Your task to perform on an android device: check battery use Image 0: 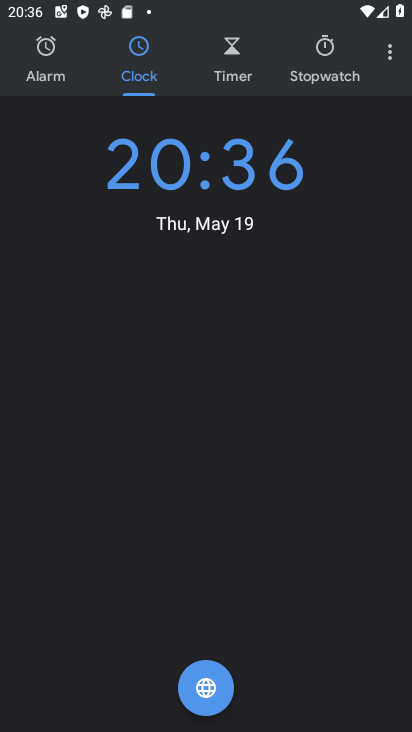
Step 0: press home button
Your task to perform on an android device: check battery use Image 1: 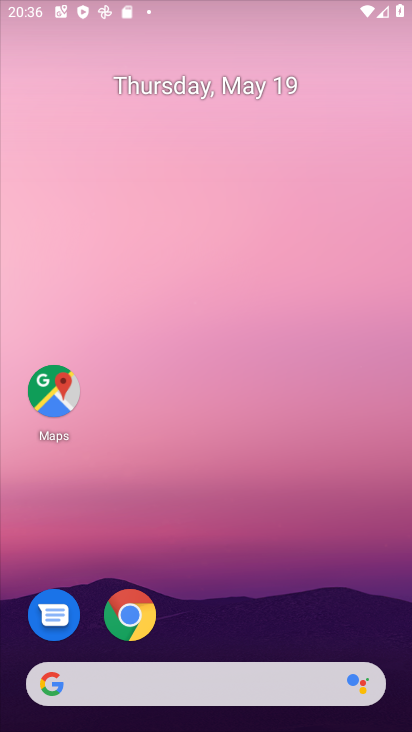
Step 1: drag from (240, 579) to (229, 55)
Your task to perform on an android device: check battery use Image 2: 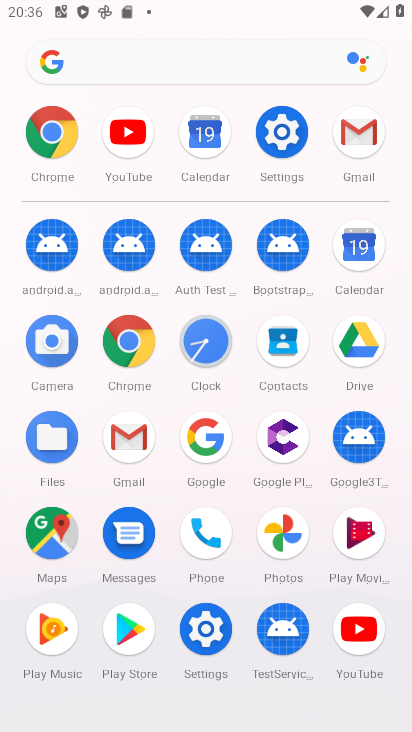
Step 2: click (280, 138)
Your task to perform on an android device: check battery use Image 3: 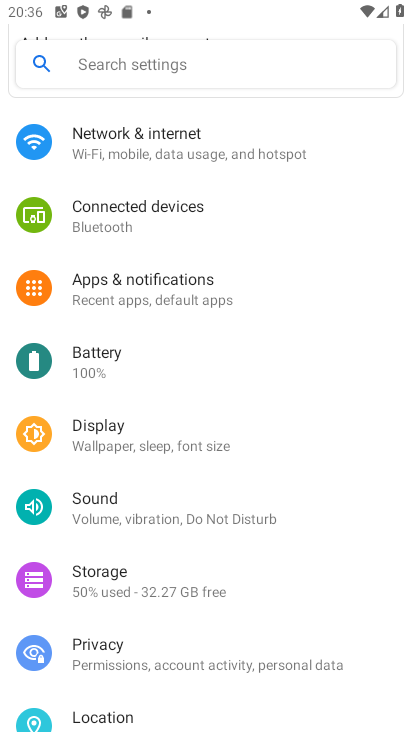
Step 3: click (112, 354)
Your task to perform on an android device: check battery use Image 4: 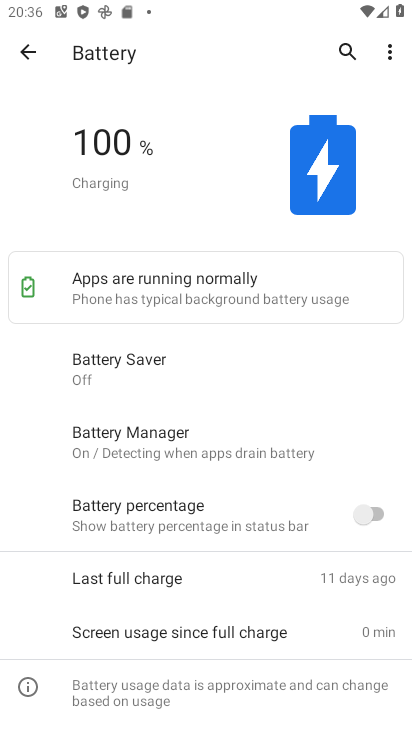
Step 4: click (388, 55)
Your task to perform on an android device: check battery use Image 5: 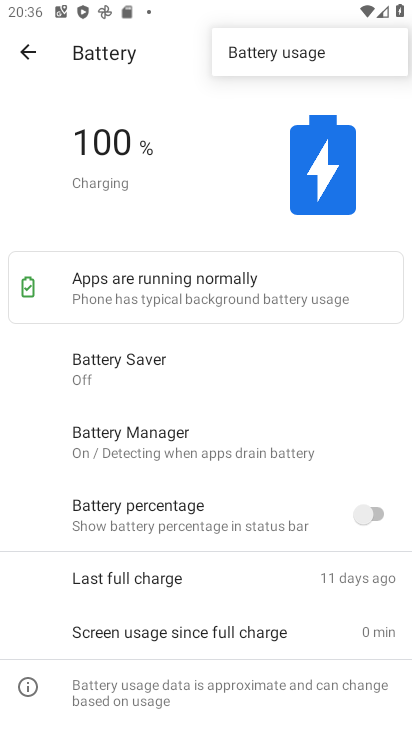
Step 5: click (236, 69)
Your task to perform on an android device: check battery use Image 6: 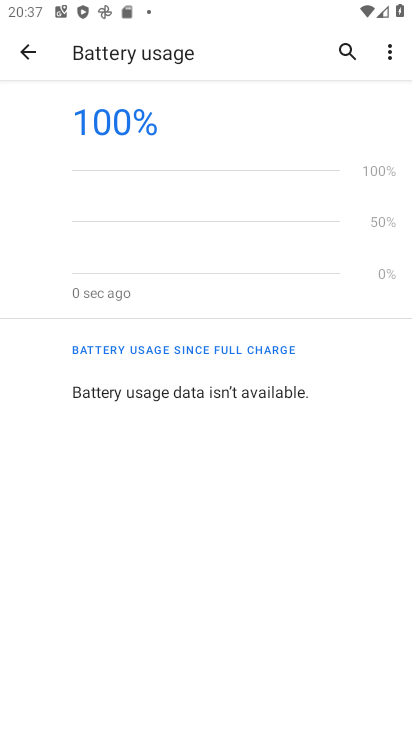
Step 6: task complete